Your task to perform on an android device: check storage Image 0: 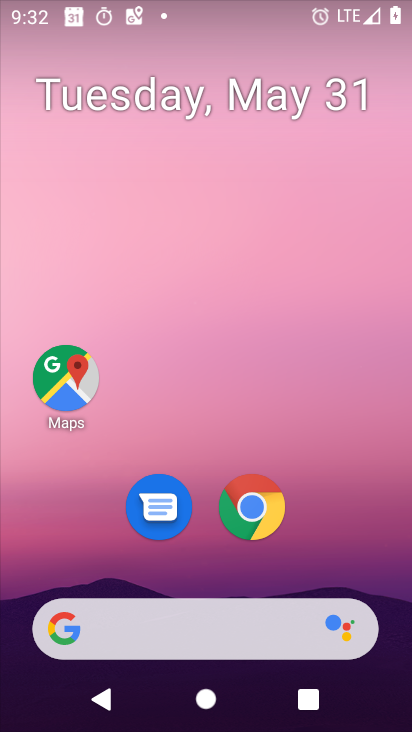
Step 0: drag from (161, 335) to (322, 92)
Your task to perform on an android device: check storage Image 1: 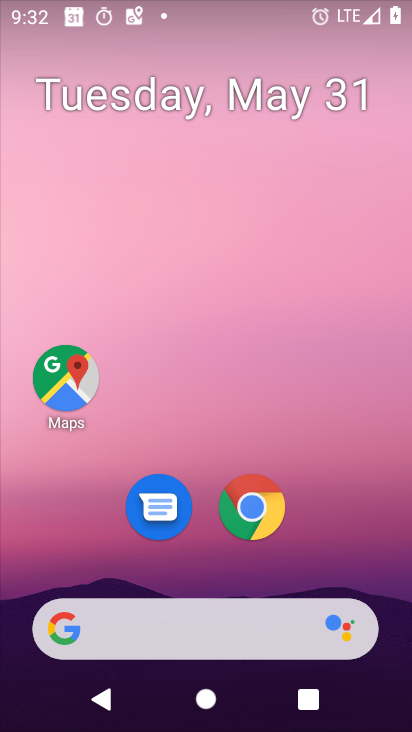
Step 1: drag from (22, 540) to (278, 139)
Your task to perform on an android device: check storage Image 2: 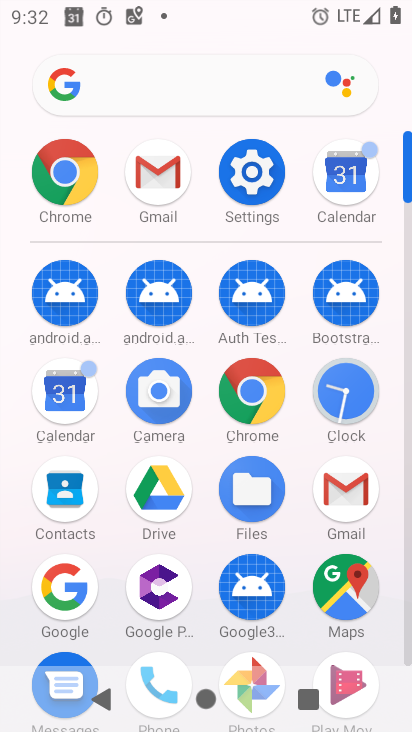
Step 2: click (253, 160)
Your task to perform on an android device: check storage Image 3: 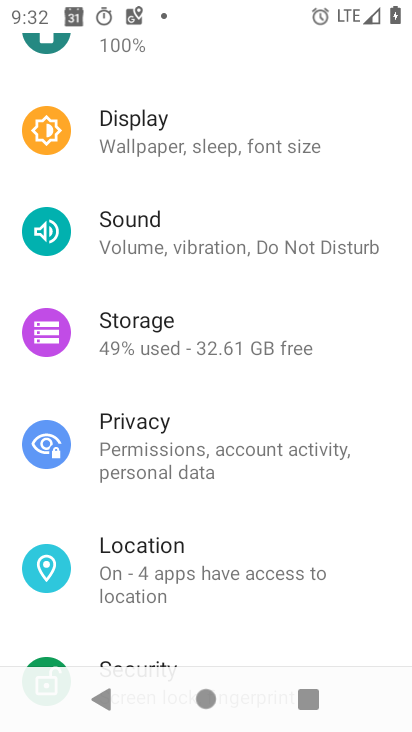
Step 3: click (149, 330)
Your task to perform on an android device: check storage Image 4: 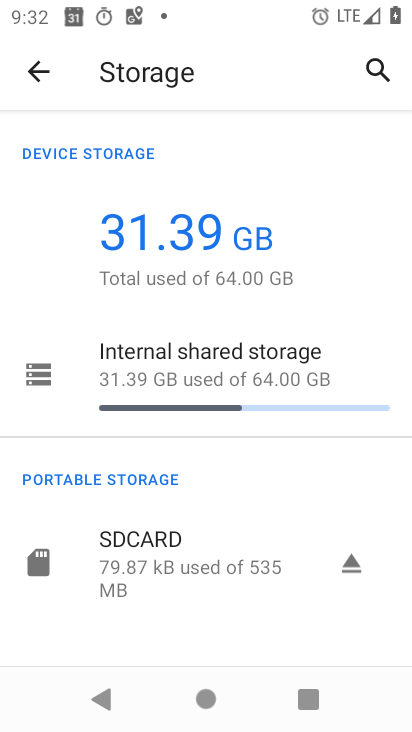
Step 4: task complete